Your task to perform on an android device: turn on sleep mode Image 0: 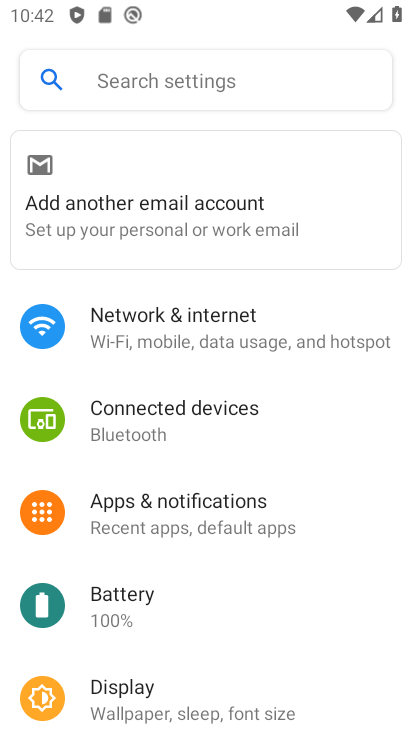
Step 0: press home button
Your task to perform on an android device: turn on sleep mode Image 1: 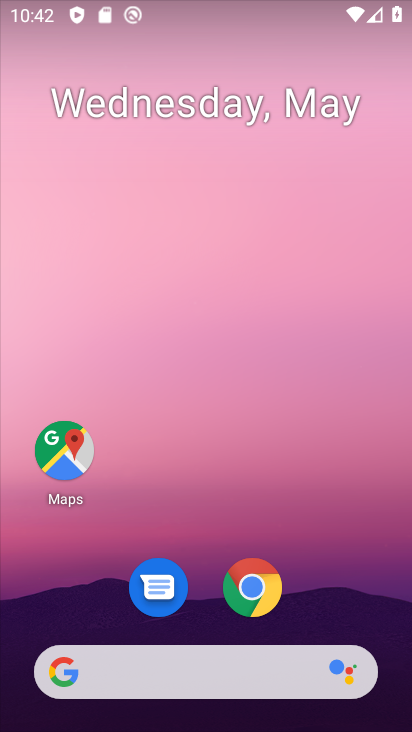
Step 1: task complete